Your task to perform on an android device: manage bookmarks in the chrome app Image 0: 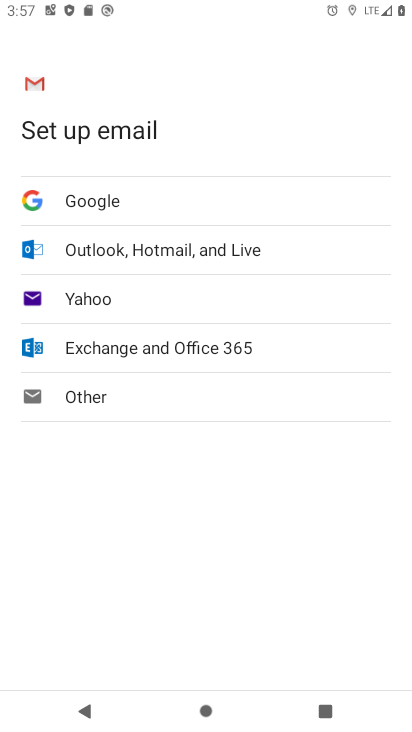
Step 0: press home button
Your task to perform on an android device: manage bookmarks in the chrome app Image 1: 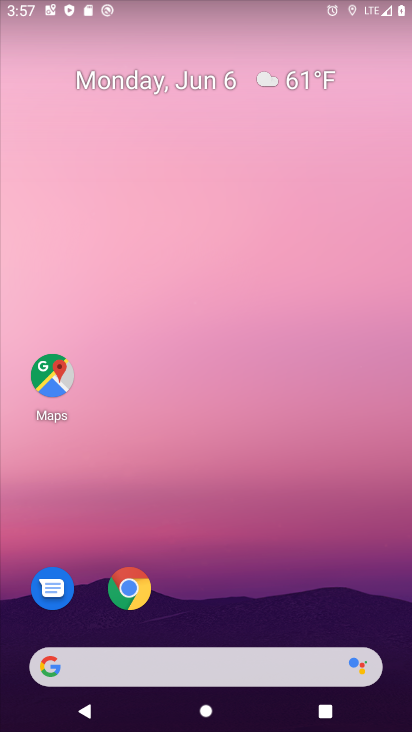
Step 1: click (136, 601)
Your task to perform on an android device: manage bookmarks in the chrome app Image 2: 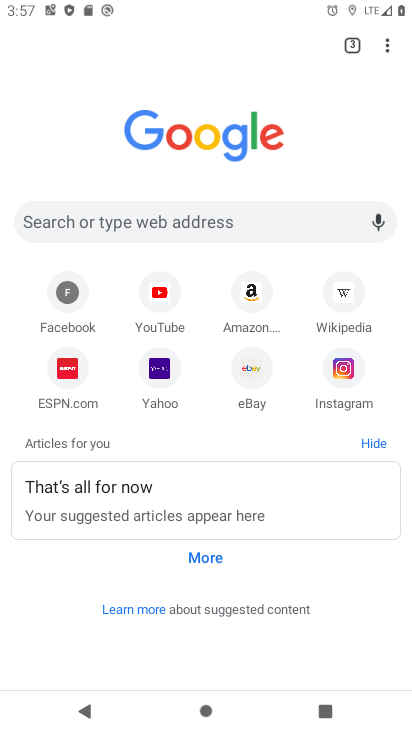
Step 2: click (389, 54)
Your task to perform on an android device: manage bookmarks in the chrome app Image 3: 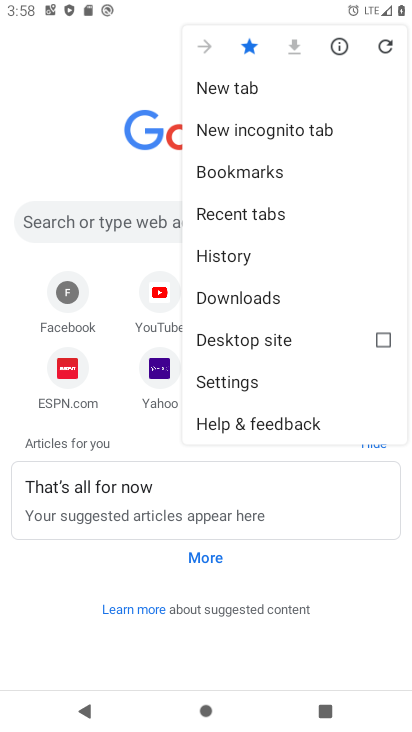
Step 3: click (303, 175)
Your task to perform on an android device: manage bookmarks in the chrome app Image 4: 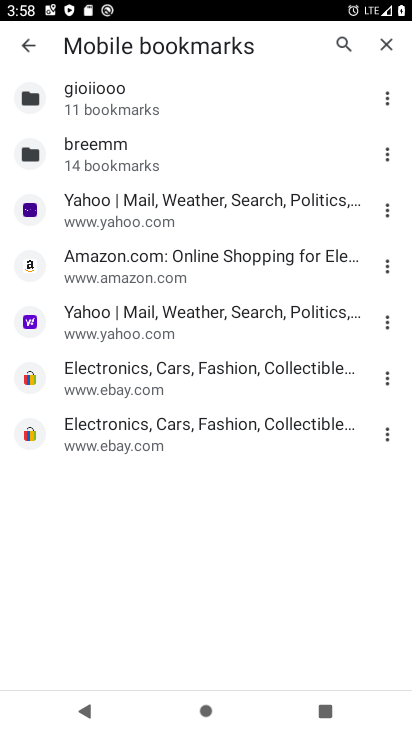
Step 4: click (301, 199)
Your task to perform on an android device: manage bookmarks in the chrome app Image 5: 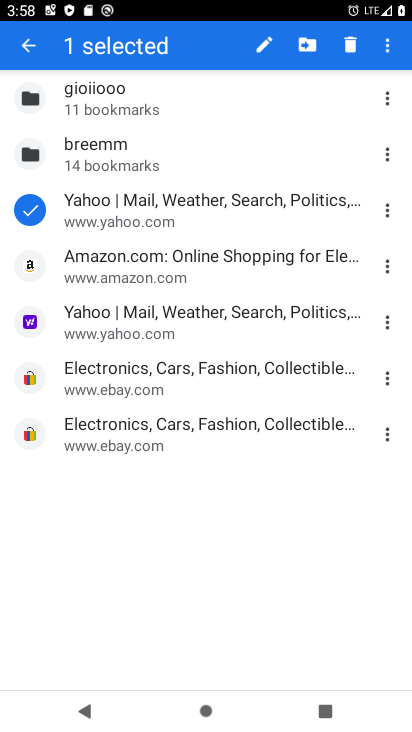
Step 5: click (311, 38)
Your task to perform on an android device: manage bookmarks in the chrome app Image 6: 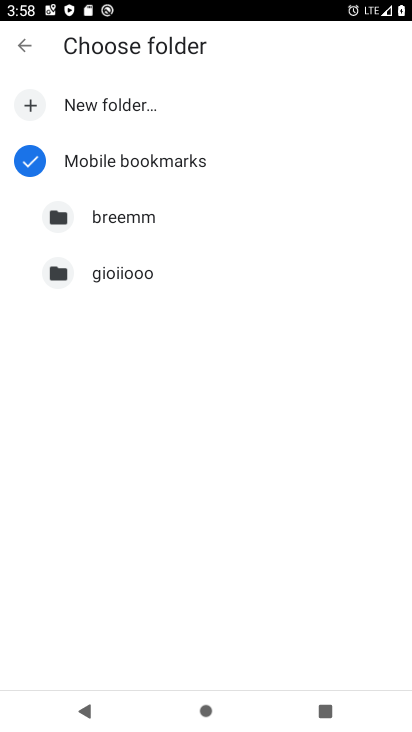
Step 6: click (131, 219)
Your task to perform on an android device: manage bookmarks in the chrome app Image 7: 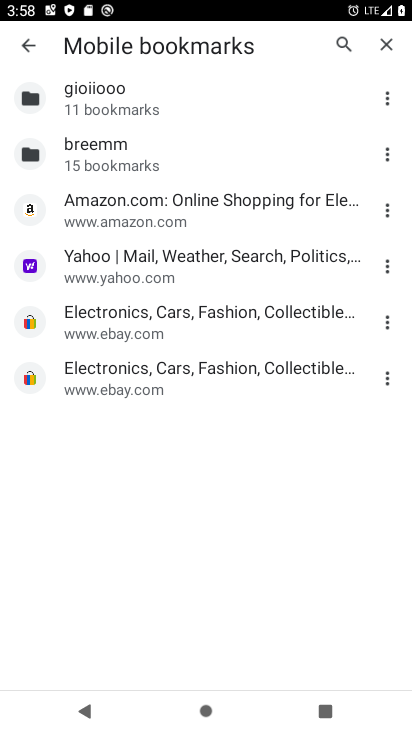
Step 7: task complete